Your task to perform on an android device: Go to eBay Image 0: 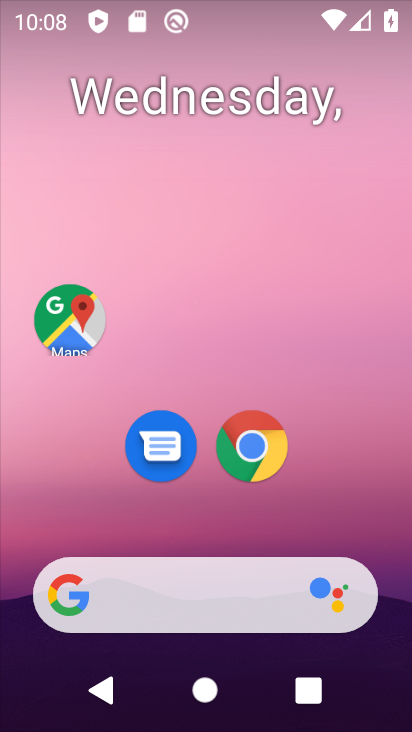
Step 0: drag from (320, 510) to (351, 78)
Your task to perform on an android device: Go to eBay Image 1: 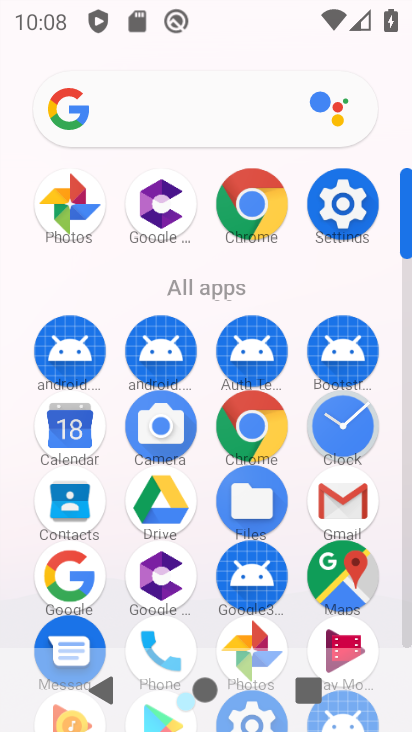
Step 1: drag from (212, 544) to (259, 229)
Your task to perform on an android device: Go to eBay Image 2: 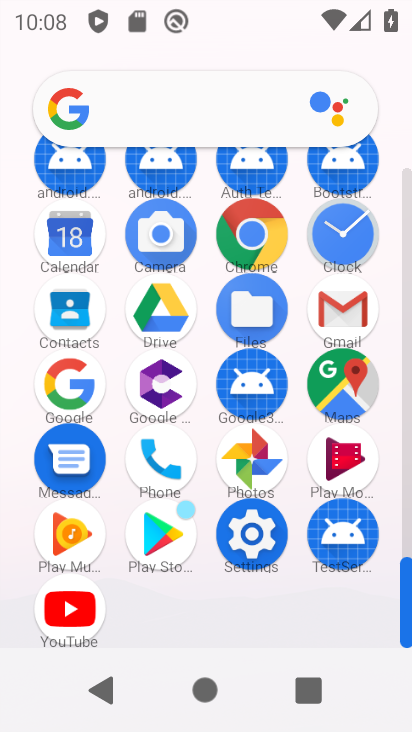
Step 2: drag from (212, 413) to (222, 521)
Your task to perform on an android device: Go to eBay Image 3: 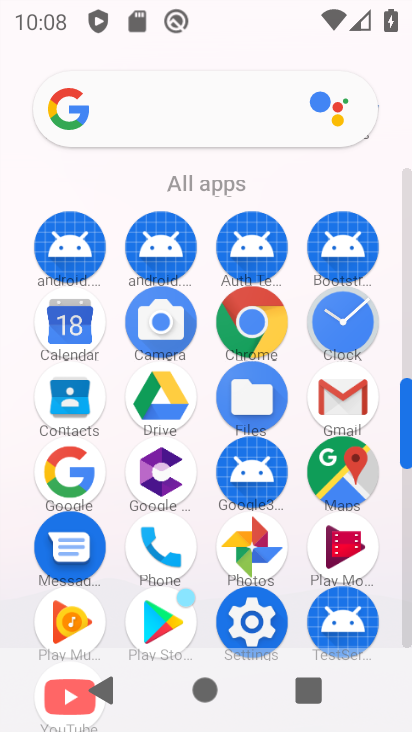
Step 3: click (74, 489)
Your task to perform on an android device: Go to eBay Image 4: 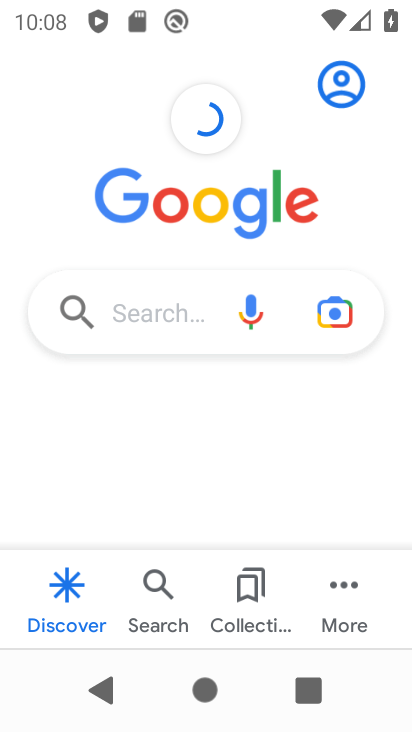
Step 4: drag from (154, 306) to (101, 306)
Your task to perform on an android device: Go to eBay Image 5: 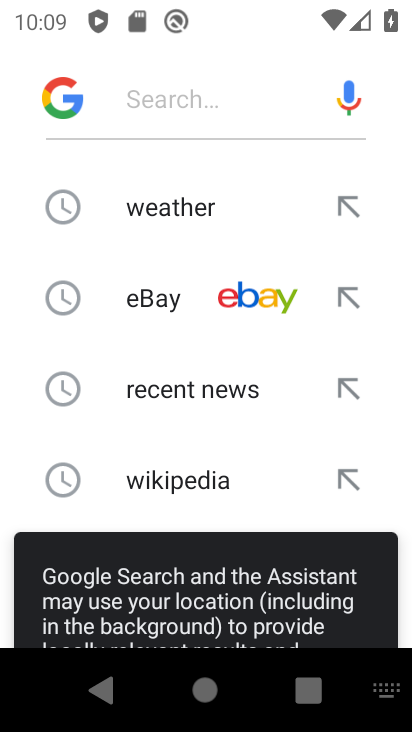
Step 5: click (185, 314)
Your task to perform on an android device: Go to eBay Image 6: 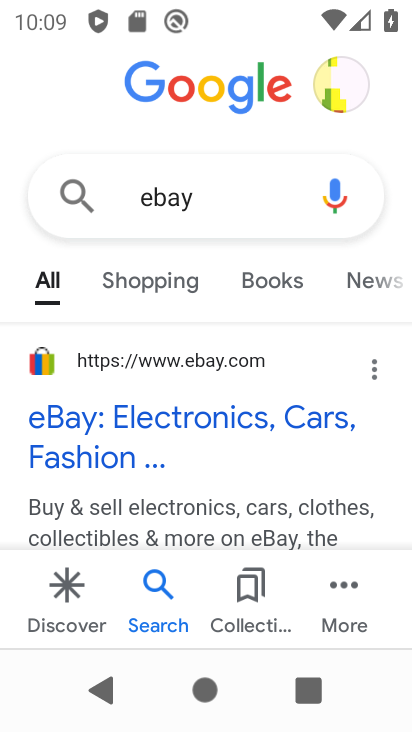
Step 6: task complete